Your task to perform on an android device: Open accessibility settings Image 0: 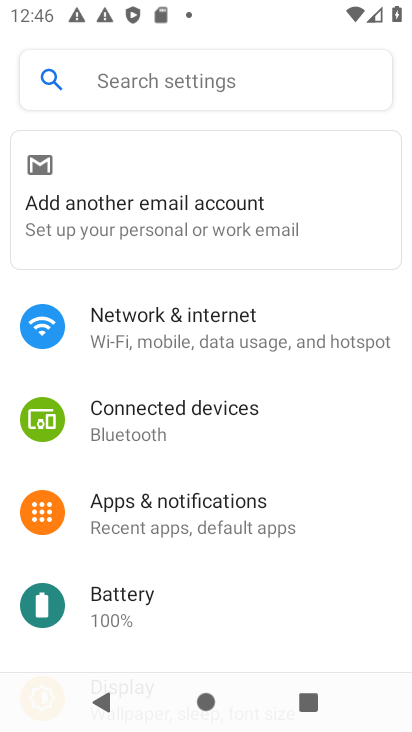
Step 0: drag from (222, 538) to (247, 70)
Your task to perform on an android device: Open accessibility settings Image 1: 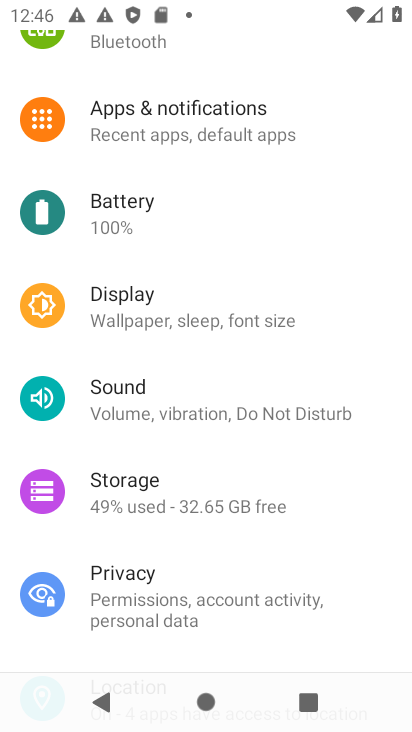
Step 1: click (225, 613)
Your task to perform on an android device: Open accessibility settings Image 2: 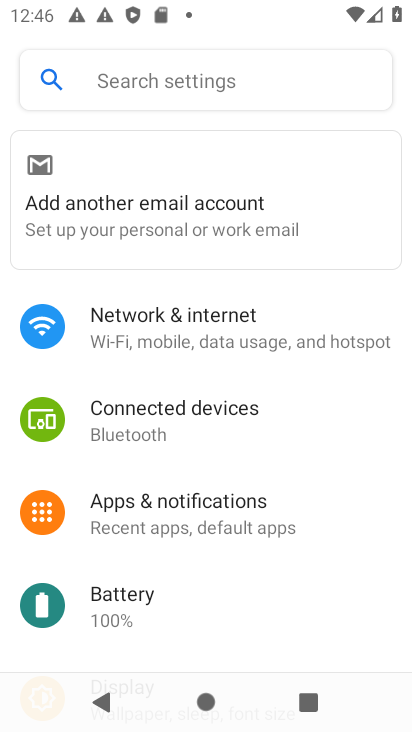
Step 2: drag from (211, 549) to (281, 128)
Your task to perform on an android device: Open accessibility settings Image 3: 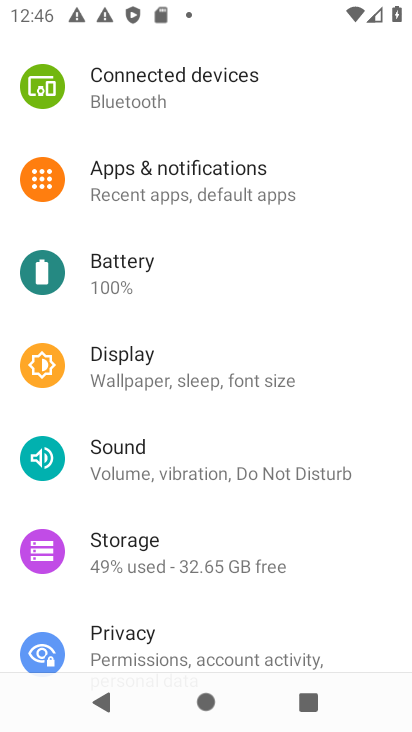
Step 3: drag from (208, 346) to (247, 108)
Your task to perform on an android device: Open accessibility settings Image 4: 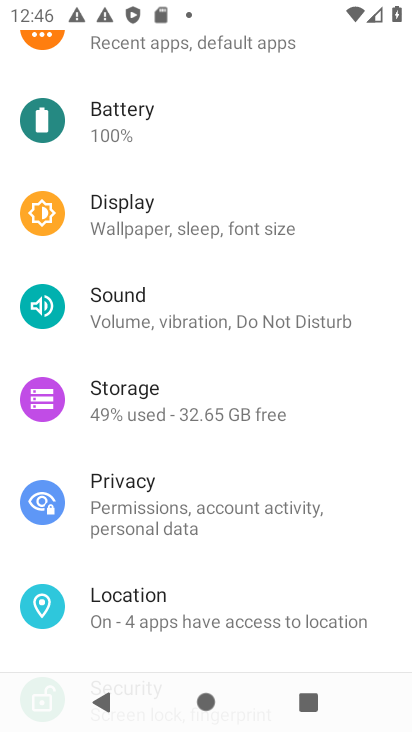
Step 4: drag from (219, 593) to (264, 99)
Your task to perform on an android device: Open accessibility settings Image 5: 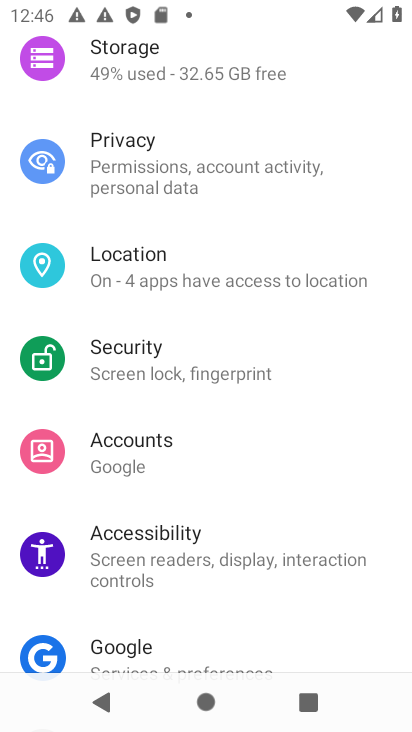
Step 5: click (186, 547)
Your task to perform on an android device: Open accessibility settings Image 6: 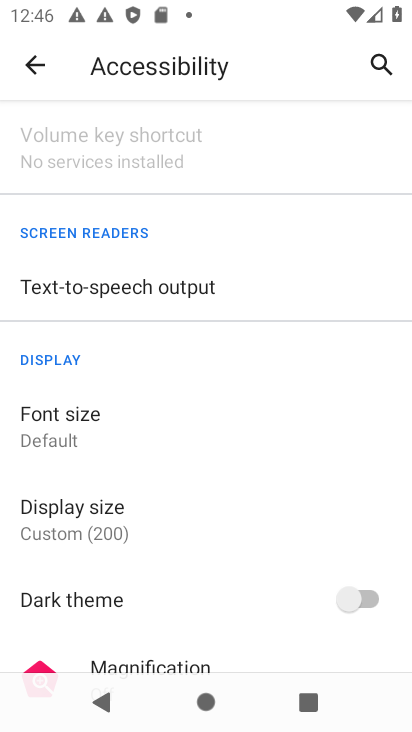
Step 6: task complete